Your task to perform on an android device: Show the shopping cart on amazon.com. Add usb-b to the cart on amazon.com Image 0: 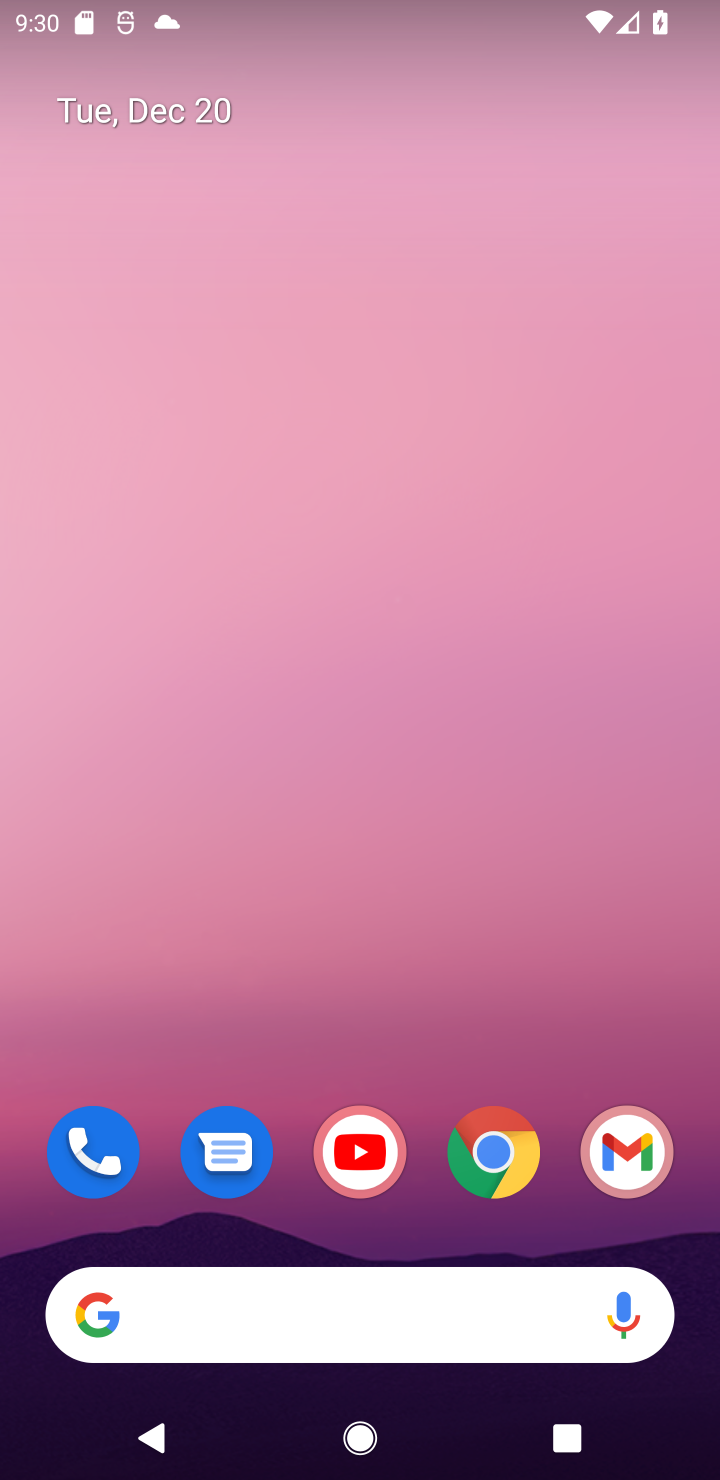
Step 0: click (501, 1152)
Your task to perform on an android device: Show the shopping cart on amazon.com. Add usb-b to the cart on amazon.com Image 1: 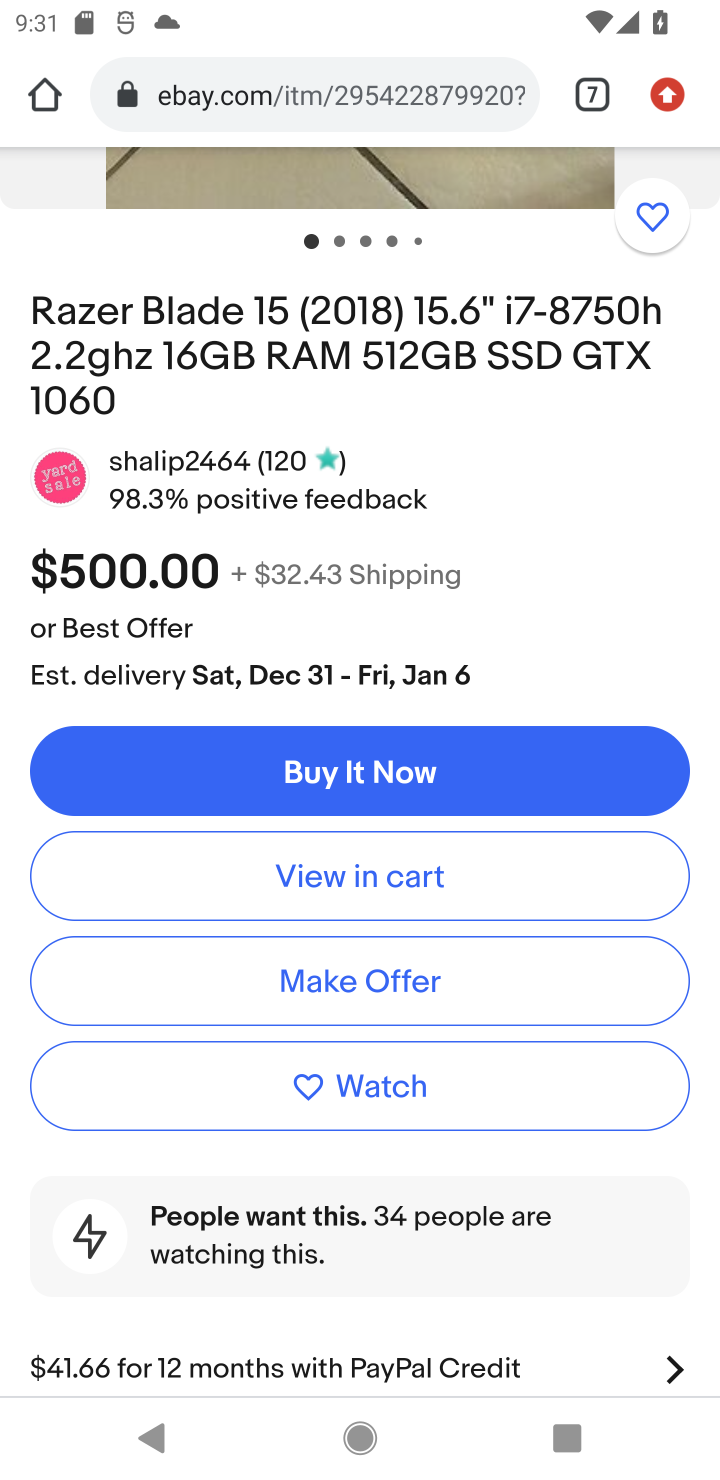
Step 1: click (589, 100)
Your task to perform on an android device: Show the shopping cart on amazon.com. Add usb-b to the cart on amazon.com Image 2: 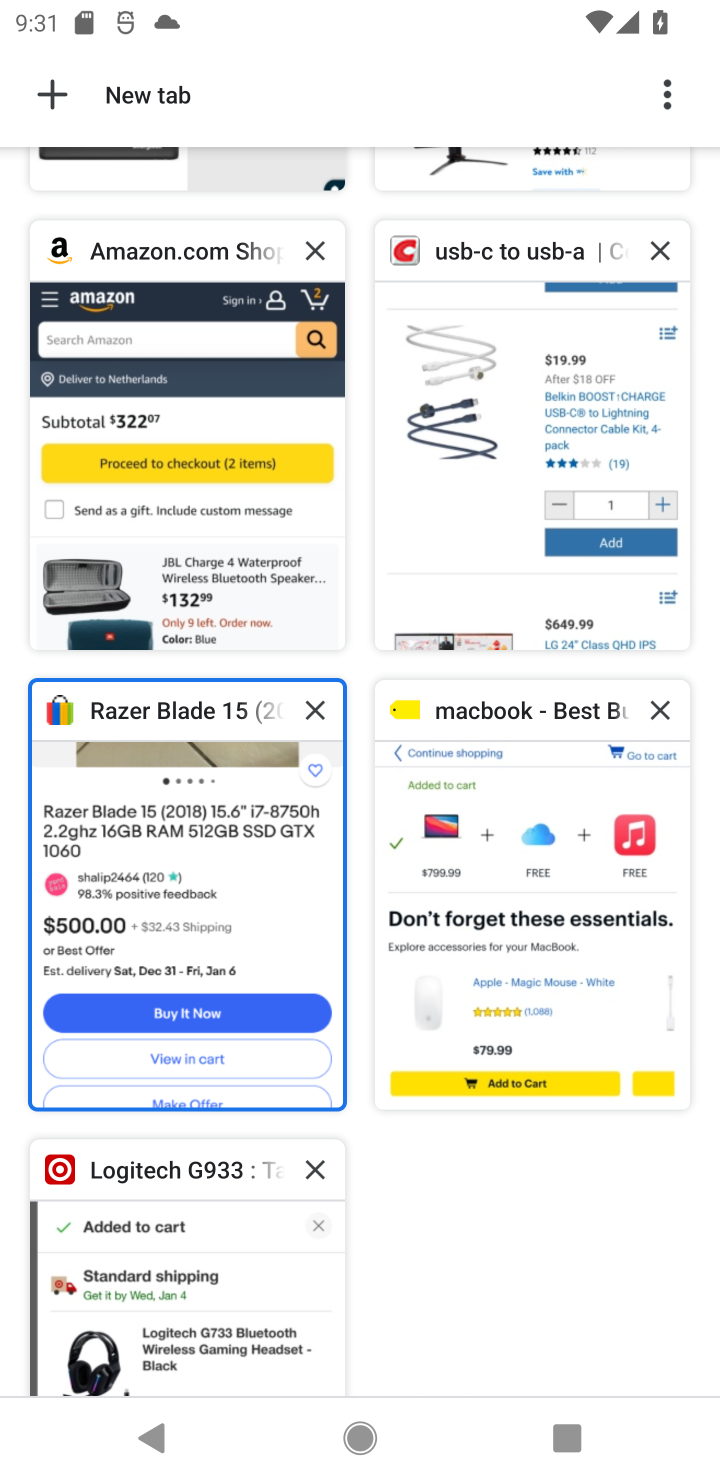
Step 2: click (201, 452)
Your task to perform on an android device: Show the shopping cart on amazon.com. Add usb-b to the cart on amazon.com Image 3: 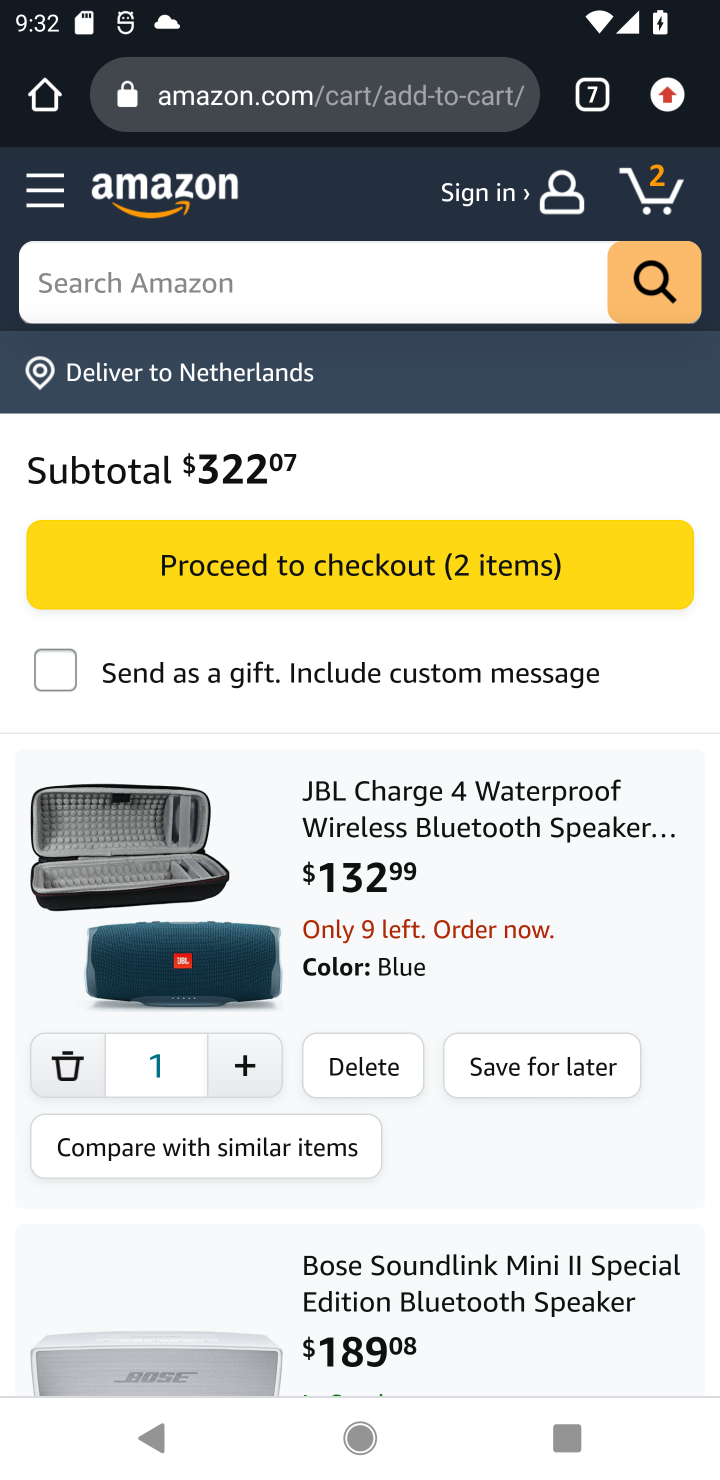
Step 3: click (266, 284)
Your task to perform on an android device: Show the shopping cart on amazon.com. Add usb-b to the cart on amazon.com Image 4: 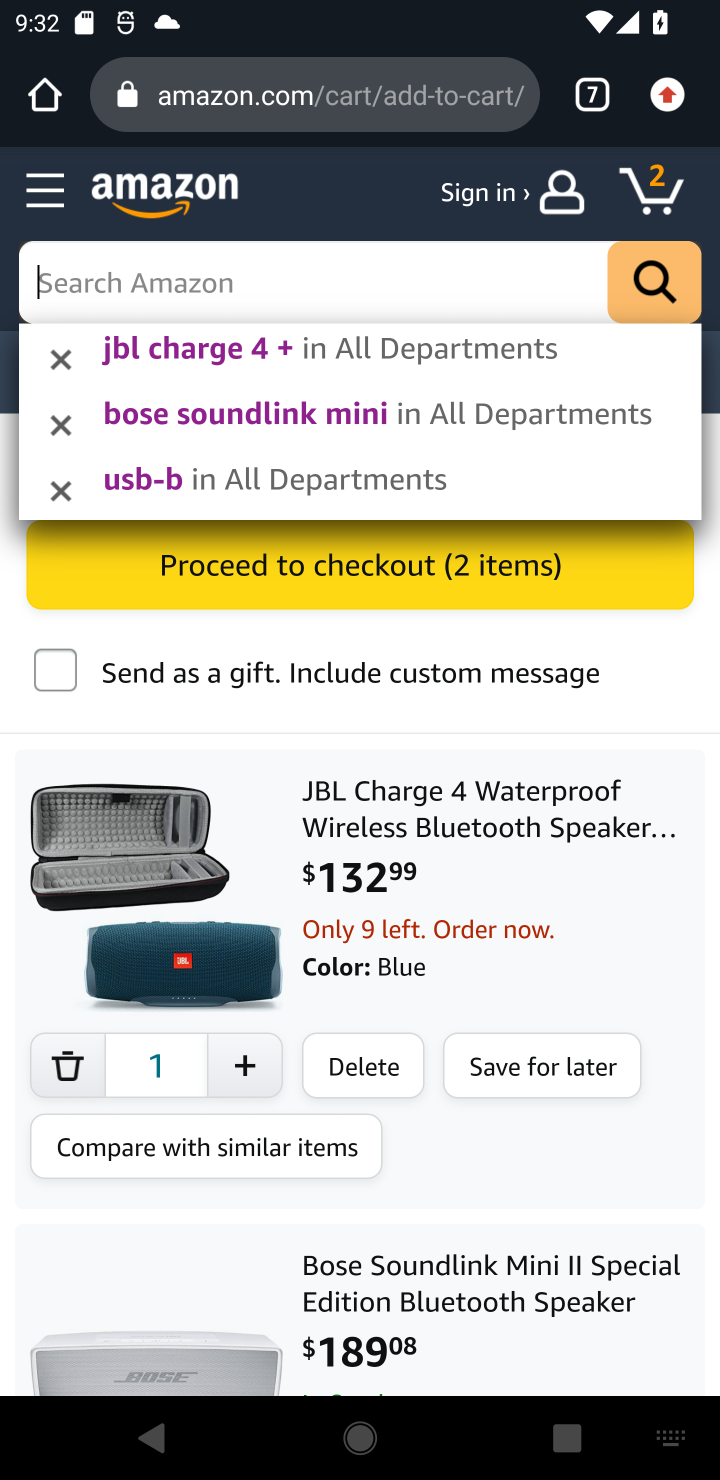
Step 4: type "usb-b"
Your task to perform on an android device: Show the shopping cart on amazon.com. Add usb-b to the cart on amazon.com Image 5: 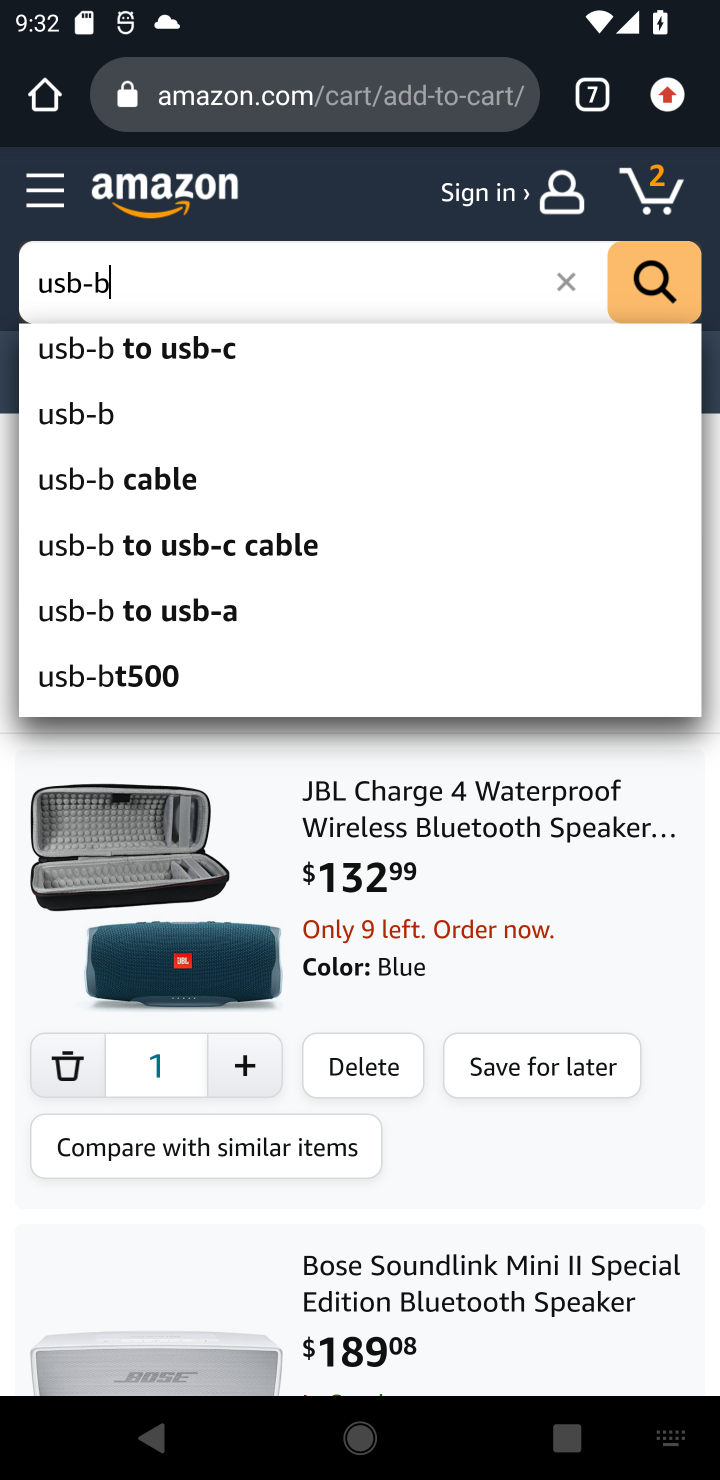
Step 5: click (88, 415)
Your task to perform on an android device: Show the shopping cart on amazon.com. Add usb-b to the cart on amazon.com Image 6: 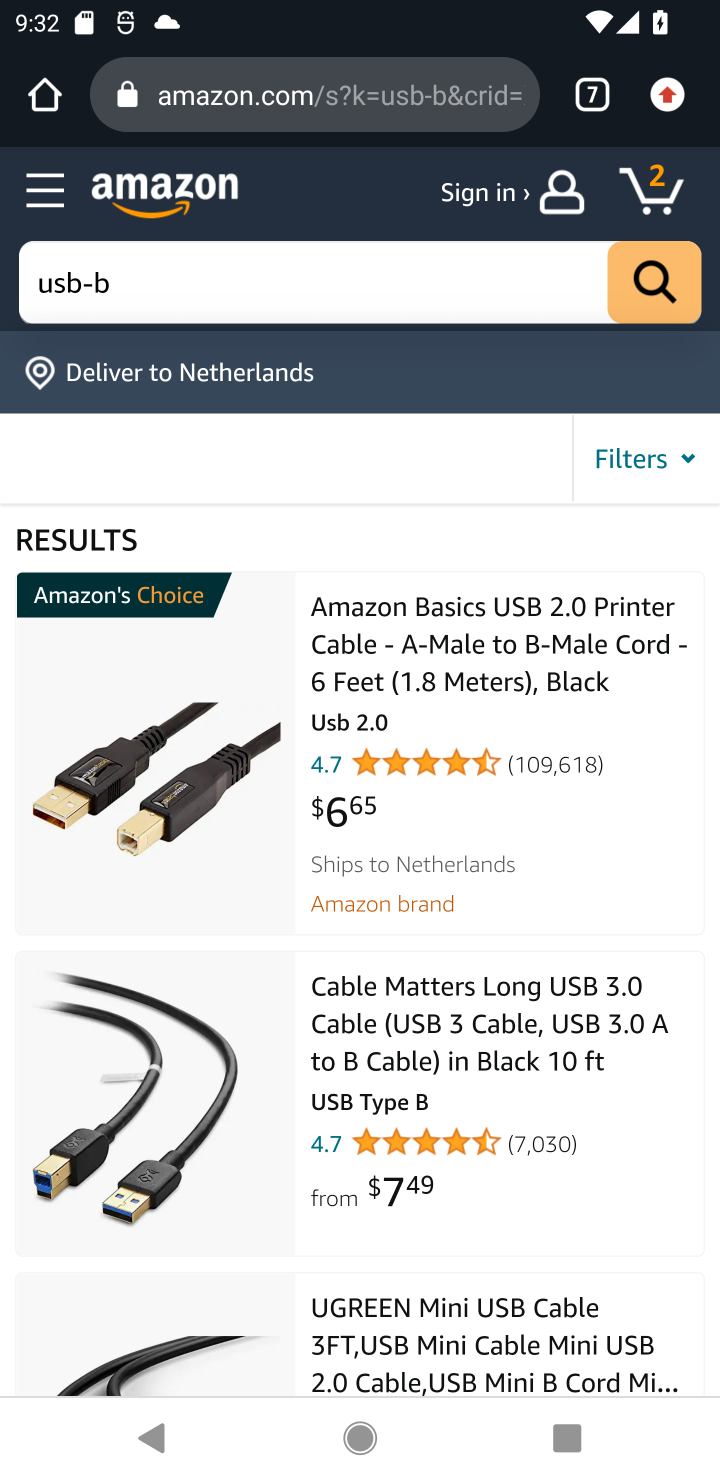
Step 6: click (451, 689)
Your task to perform on an android device: Show the shopping cart on amazon.com. Add usb-b to the cart on amazon.com Image 7: 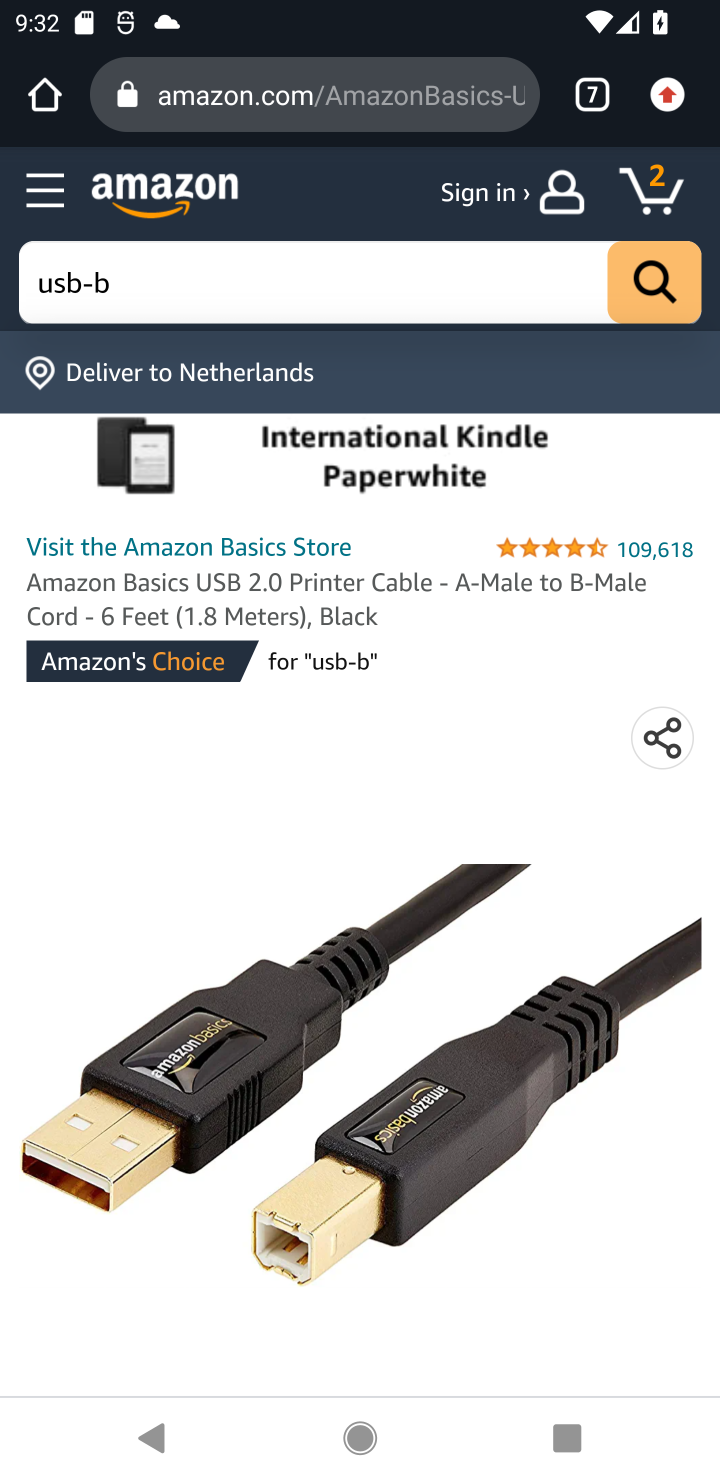
Step 7: drag from (351, 1259) to (559, 573)
Your task to perform on an android device: Show the shopping cart on amazon.com. Add usb-b to the cart on amazon.com Image 8: 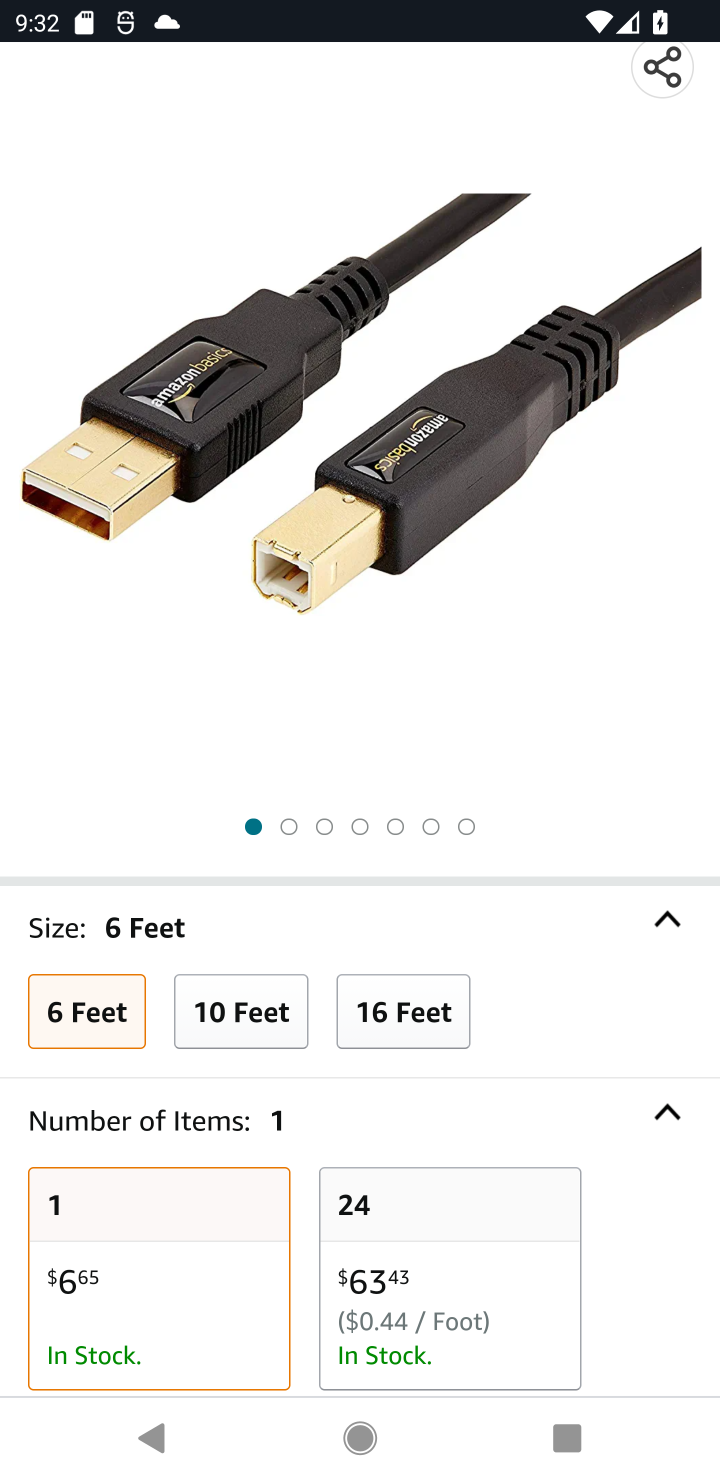
Step 8: drag from (332, 1228) to (484, 203)
Your task to perform on an android device: Show the shopping cart on amazon.com. Add usb-b to the cart on amazon.com Image 9: 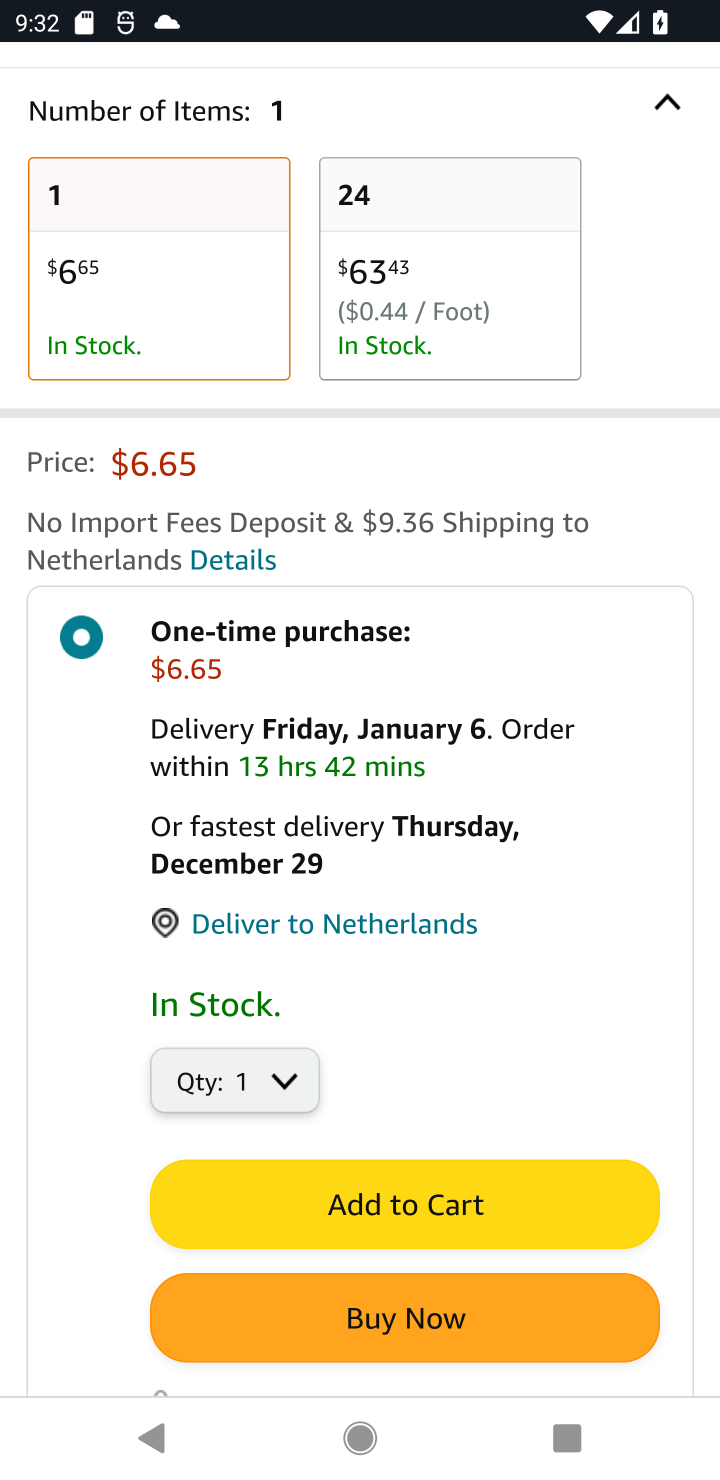
Step 9: click (408, 1195)
Your task to perform on an android device: Show the shopping cart on amazon.com. Add usb-b to the cart on amazon.com Image 10: 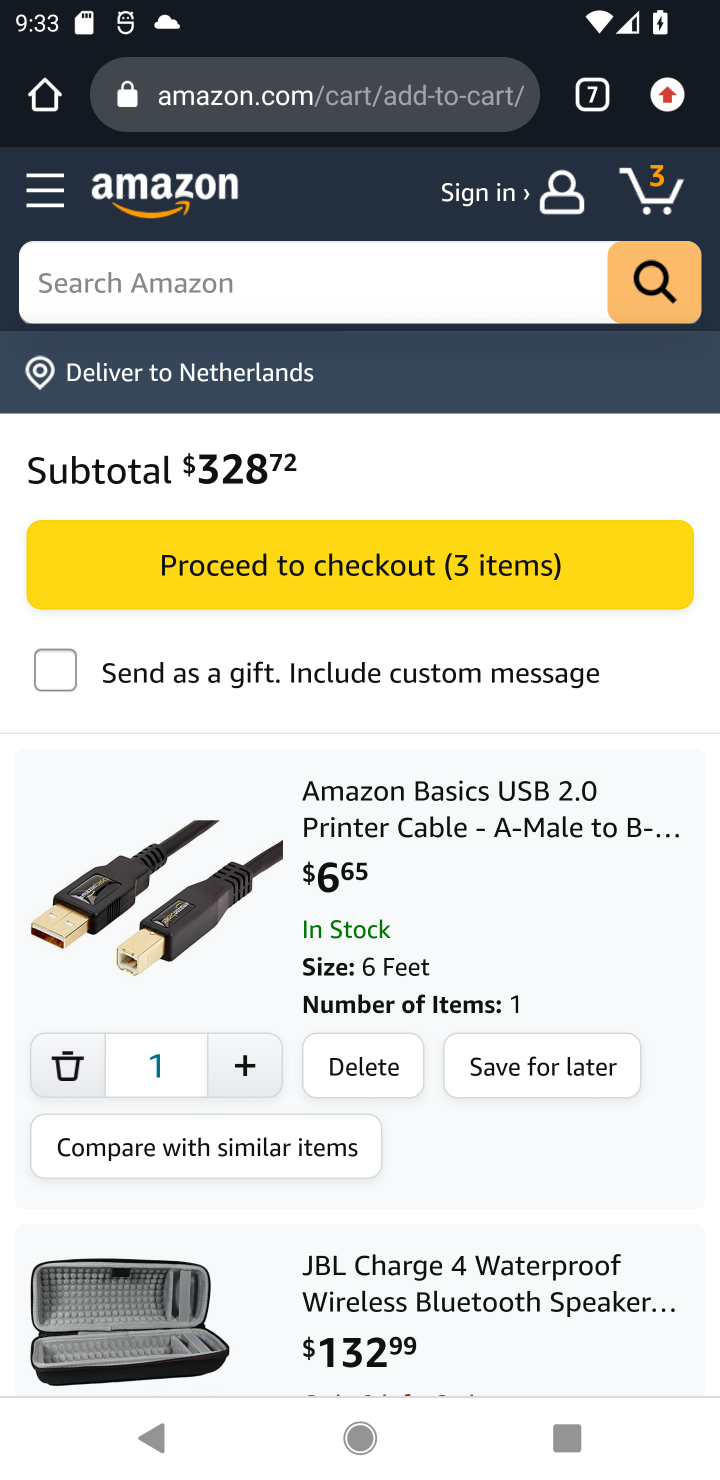
Step 10: task complete